Your task to perform on an android device: turn off notifications settings in the gmail app Image 0: 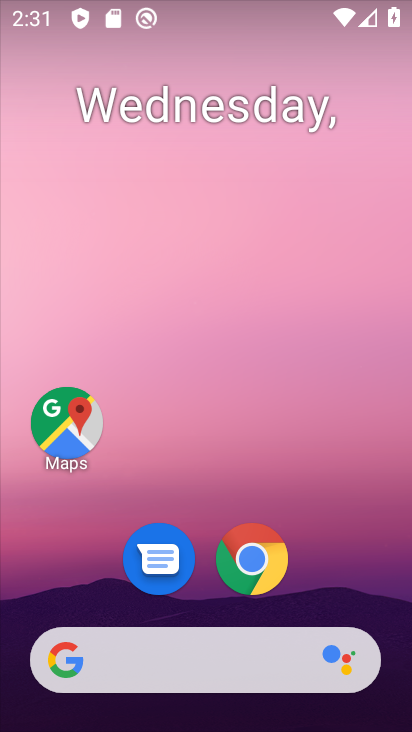
Step 0: drag from (312, 392) to (270, 120)
Your task to perform on an android device: turn off notifications settings in the gmail app Image 1: 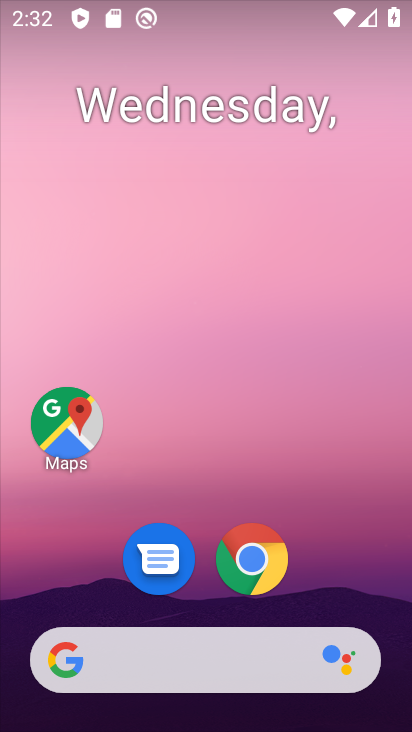
Step 1: drag from (368, 589) to (359, 178)
Your task to perform on an android device: turn off notifications settings in the gmail app Image 2: 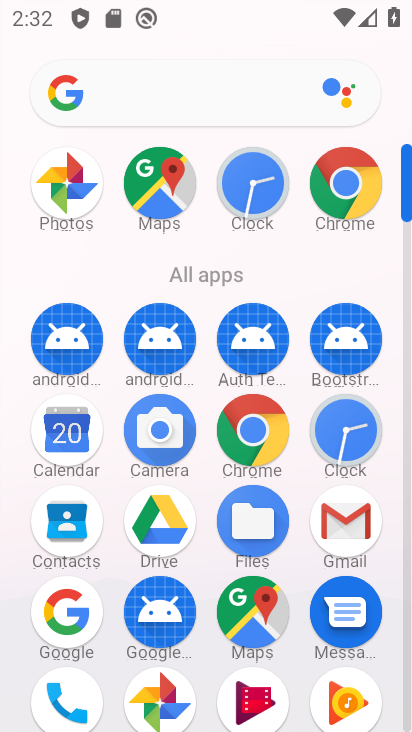
Step 2: click (345, 531)
Your task to perform on an android device: turn off notifications settings in the gmail app Image 3: 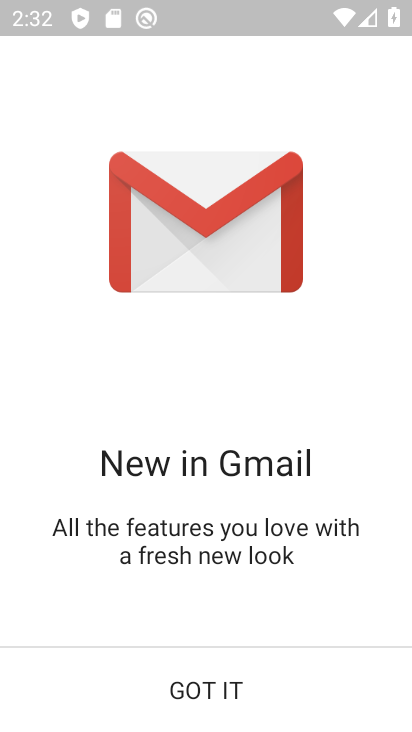
Step 3: click (223, 697)
Your task to perform on an android device: turn off notifications settings in the gmail app Image 4: 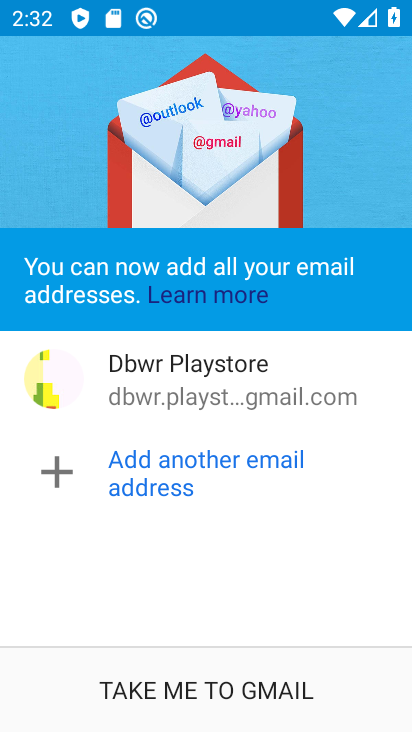
Step 4: click (224, 687)
Your task to perform on an android device: turn off notifications settings in the gmail app Image 5: 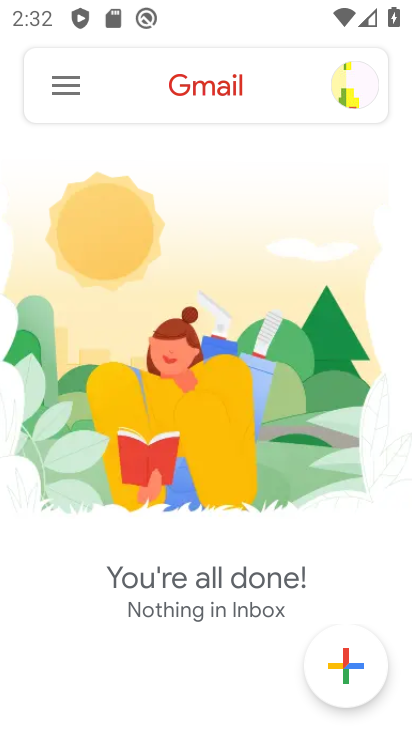
Step 5: click (53, 86)
Your task to perform on an android device: turn off notifications settings in the gmail app Image 6: 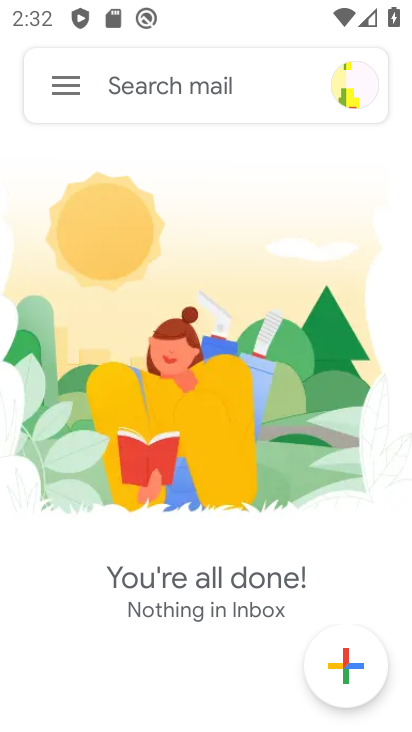
Step 6: click (54, 85)
Your task to perform on an android device: turn off notifications settings in the gmail app Image 7: 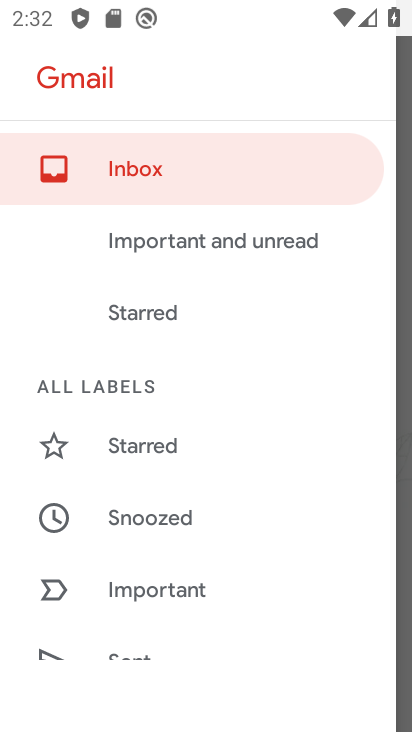
Step 7: drag from (240, 631) to (243, 351)
Your task to perform on an android device: turn off notifications settings in the gmail app Image 8: 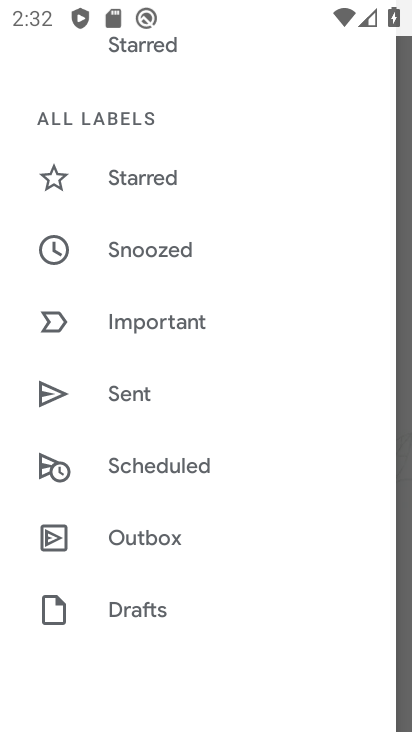
Step 8: drag from (220, 616) to (233, 253)
Your task to perform on an android device: turn off notifications settings in the gmail app Image 9: 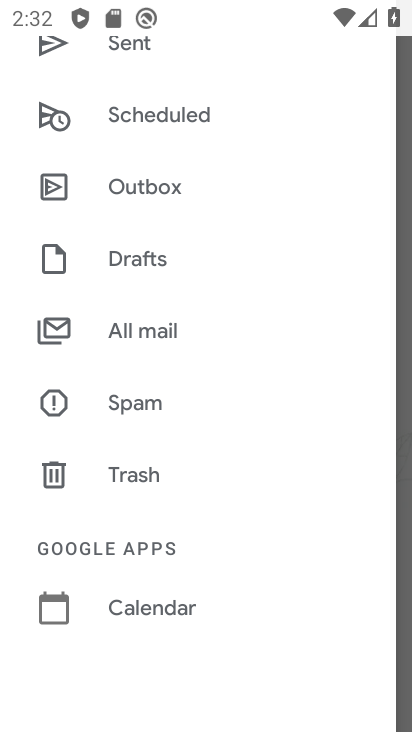
Step 9: drag from (223, 482) to (224, 208)
Your task to perform on an android device: turn off notifications settings in the gmail app Image 10: 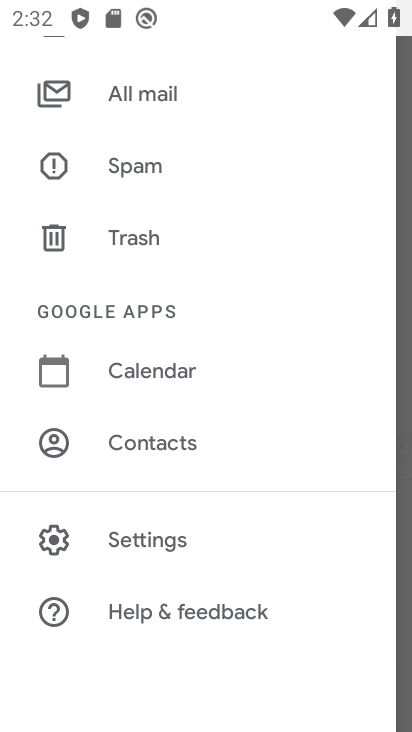
Step 10: click (152, 539)
Your task to perform on an android device: turn off notifications settings in the gmail app Image 11: 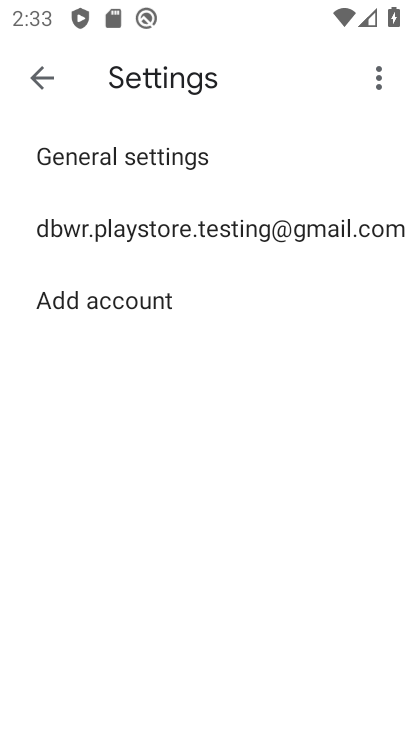
Step 11: click (262, 218)
Your task to perform on an android device: turn off notifications settings in the gmail app Image 12: 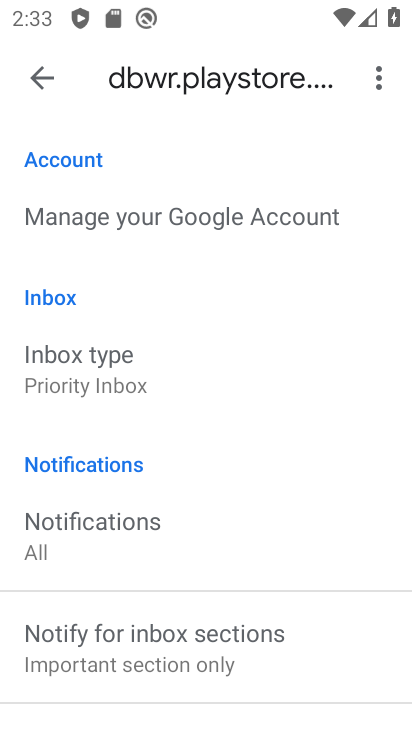
Step 12: drag from (304, 656) to (285, 395)
Your task to perform on an android device: turn off notifications settings in the gmail app Image 13: 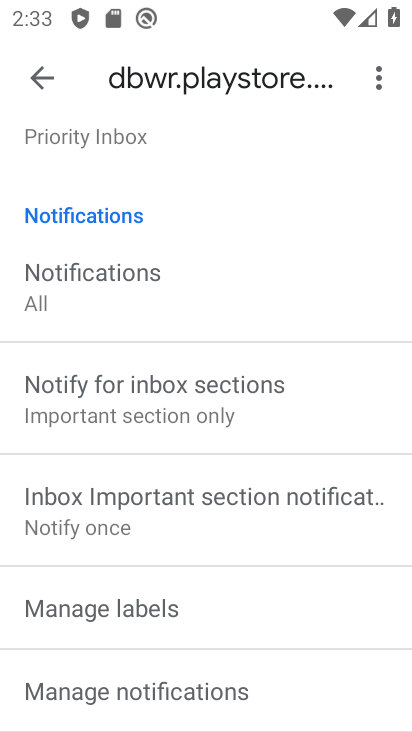
Step 13: drag from (310, 653) to (301, 355)
Your task to perform on an android device: turn off notifications settings in the gmail app Image 14: 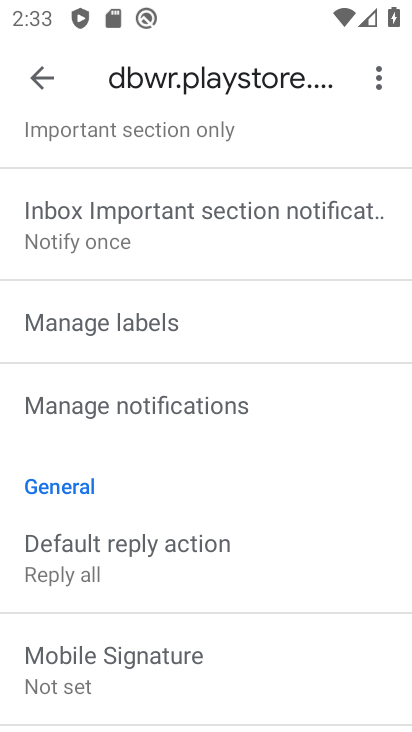
Step 14: drag from (275, 618) to (299, 364)
Your task to perform on an android device: turn off notifications settings in the gmail app Image 15: 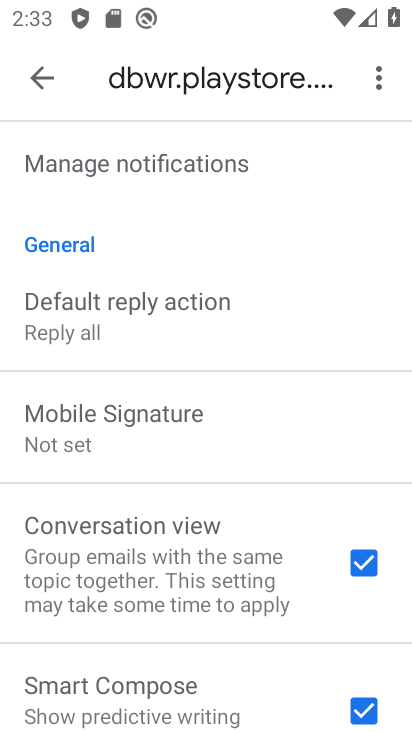
Step 15: drag from (281, 192) to (269, 677)
Your task to perform on an android device: turn off notifications settings in the gmail app Image 16: 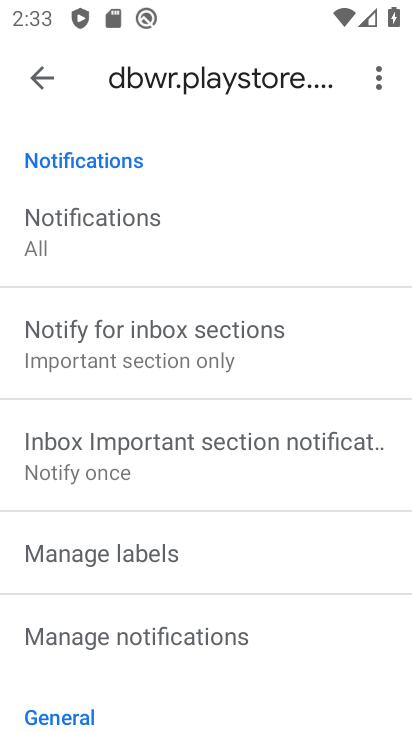
Step 16: click (150, 229)
Your task to perform on an android device: turn off notifications settings in the gmail app Image 17: 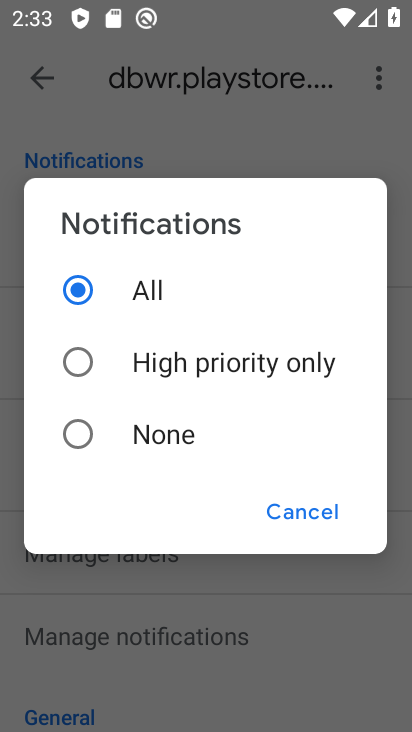
Step 17: click (156, 429)
Your task to perform on an android device: turn off notifications settings in the gmail app Image 18: 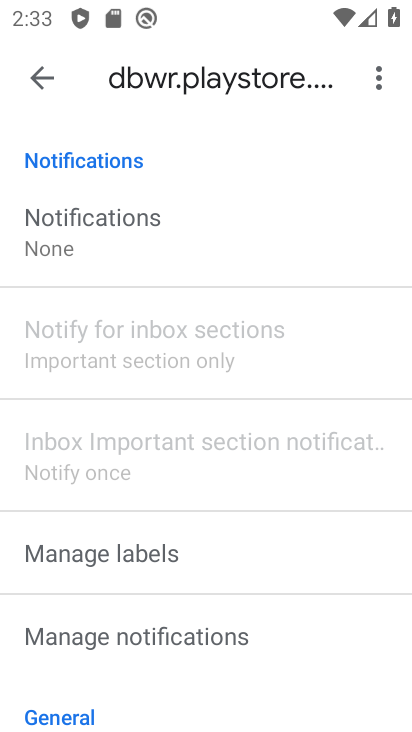
Step 18: task complete